Your task to perform on an android device: Look up the best rated hair dryer on Walmart. Image 0: 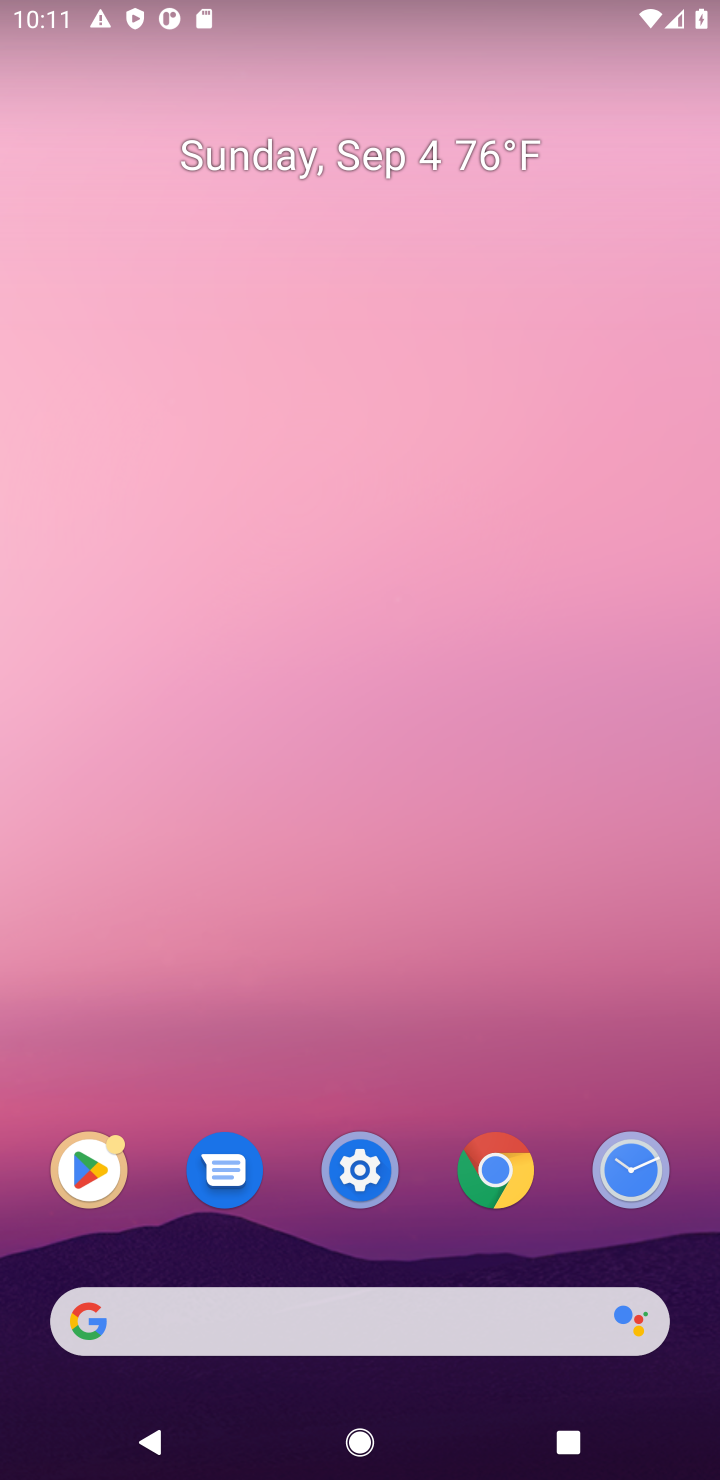
Step 0: click (467, 1309)
Your task to perform on an android device: Look up the best rated hair dryer on Walmart. Image 1: 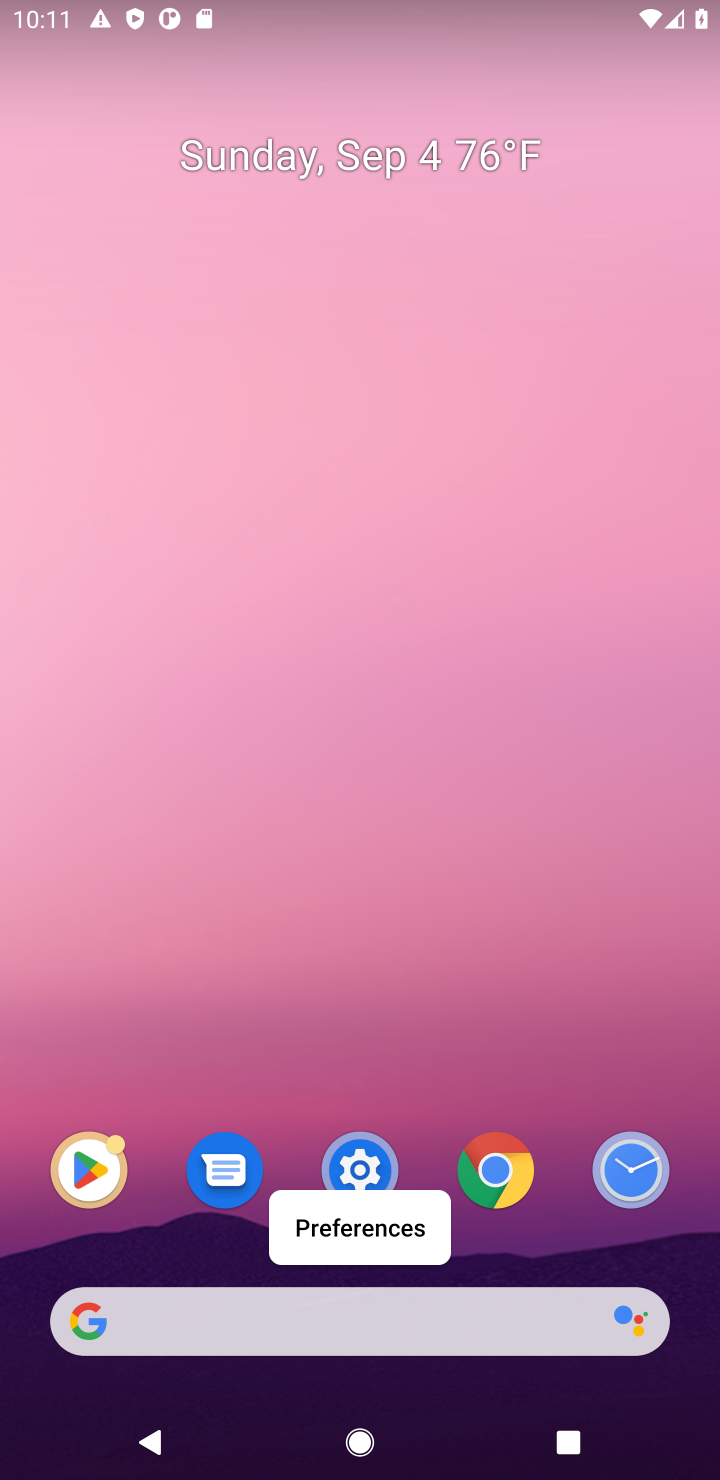
Step 1: click (295, 1330)
Your task to perform on an android device: Look up the best rated hair dryer on Walmart. Image 2: 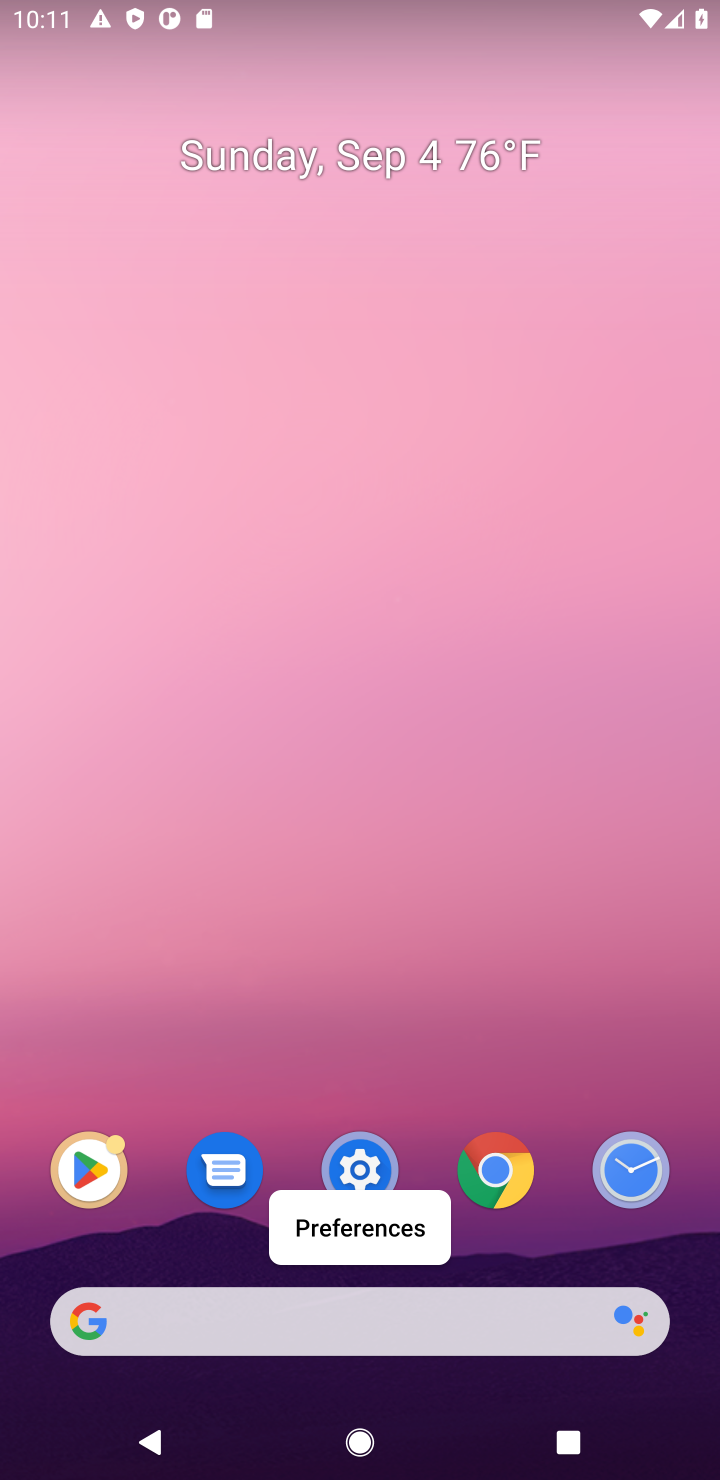
Step 2: click (223, 1337)
Your task to perform on an android device: Look up the best rated hair dryer on Walmart. Image 3: 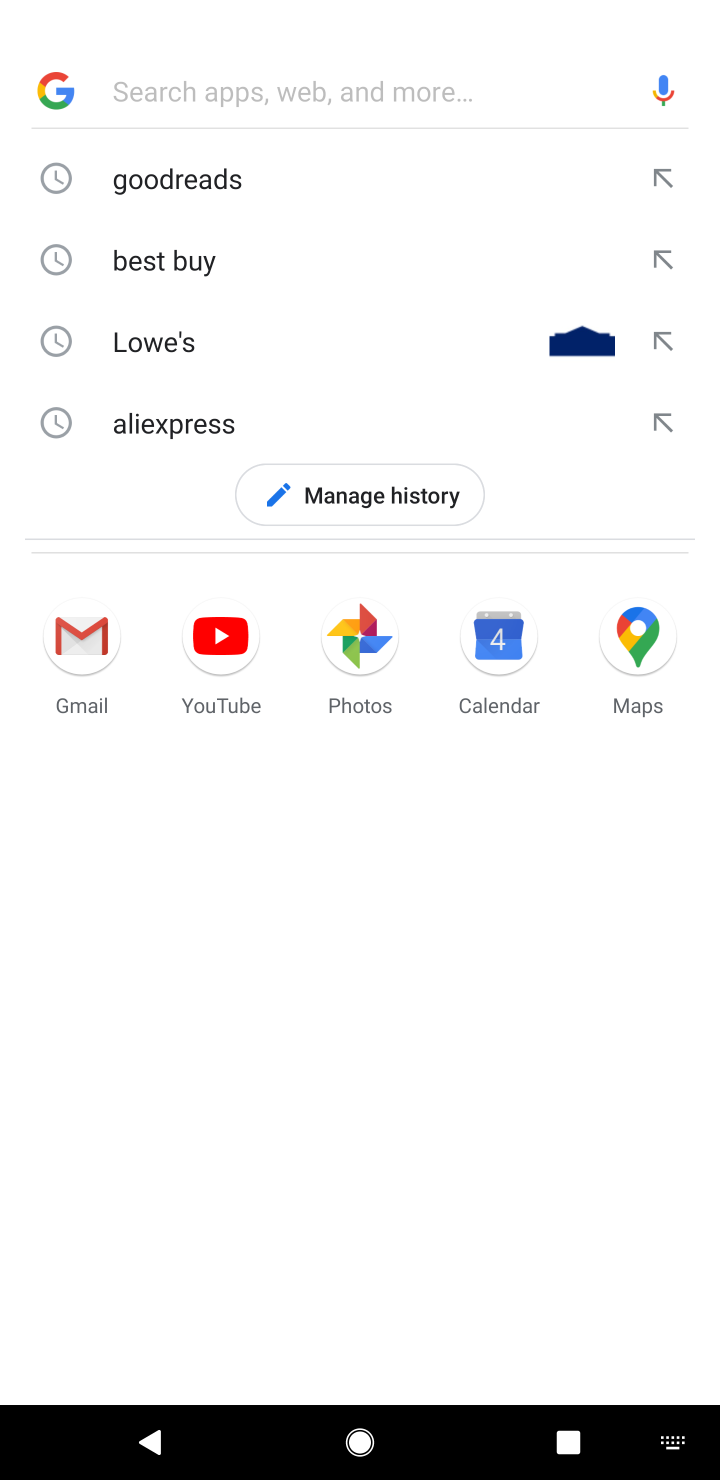
Step 3: type "Walmart"
Your task to perform on an android device: Look up the best rated hair dryer on Walmart. Image 4: 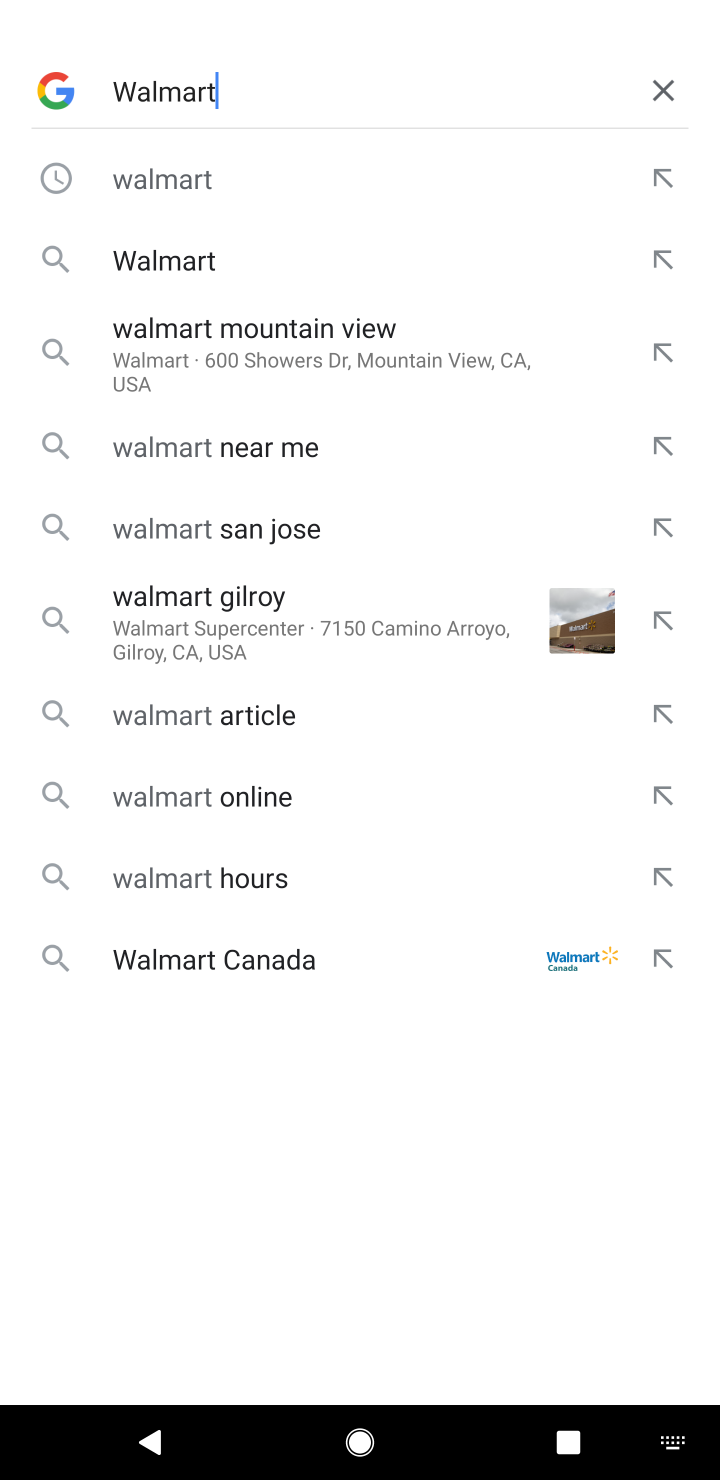
Step 4: click (227, 203)
Your task to perform on an android device: Look up the best rated hair dryer on Walmart. Image 5: 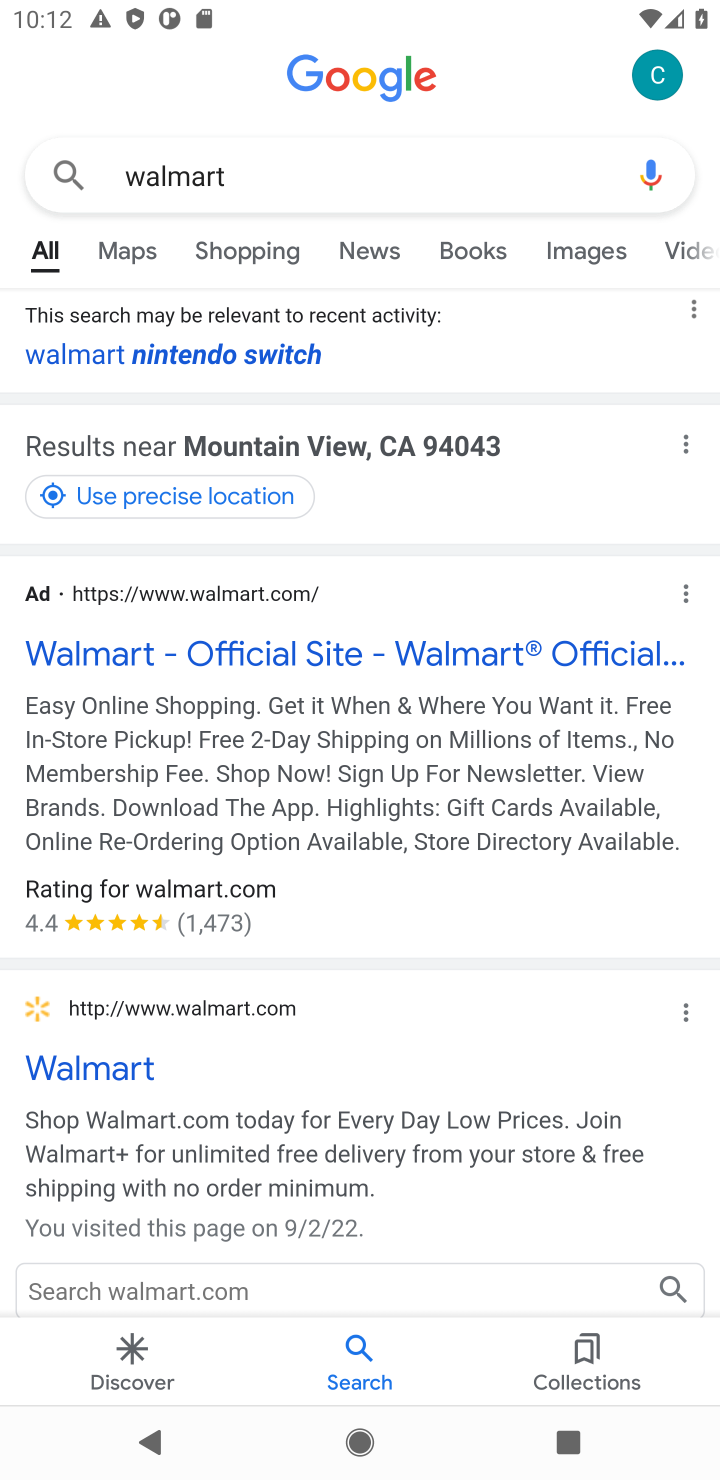
Step 5: click (76, 1056)
Your task to perform on an android device: Look up the best rated hair dryer on Walmart. Image 6: 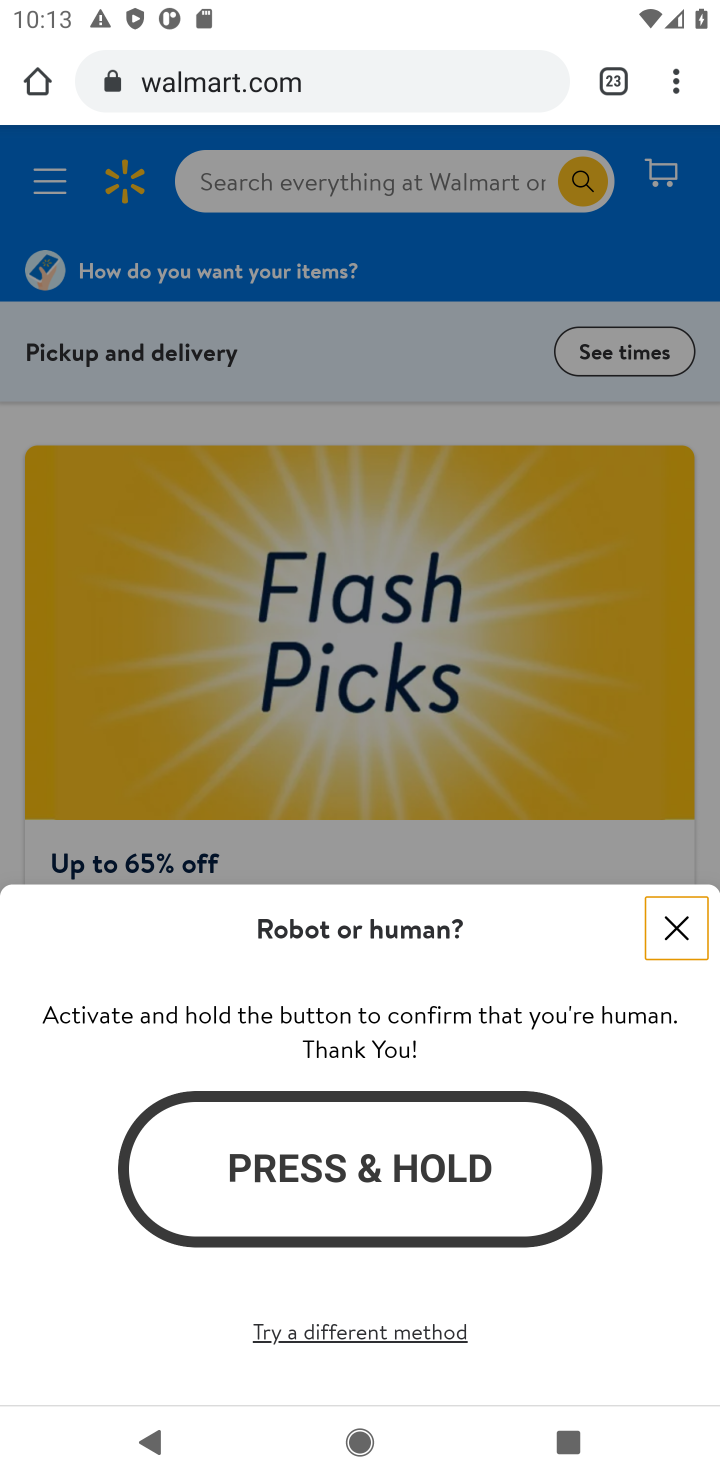
Step 6: click (688, 938)
Your task to perform on an android device: Look up the best rated hair dryer on Walmart. Image 7: 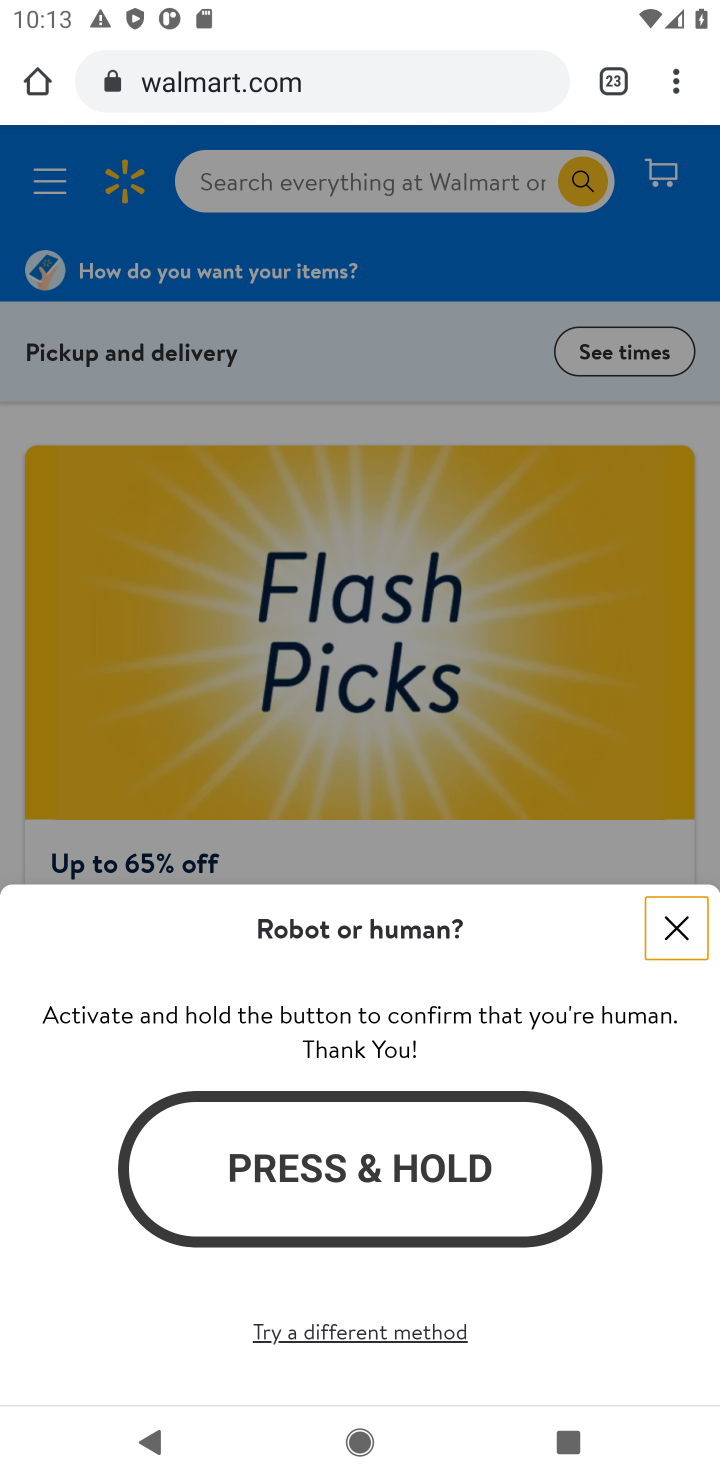
Step 7: click (688, 938)
Your task to perform on an android device: Look up the best rated hair dryer on Walmart. Image 8: 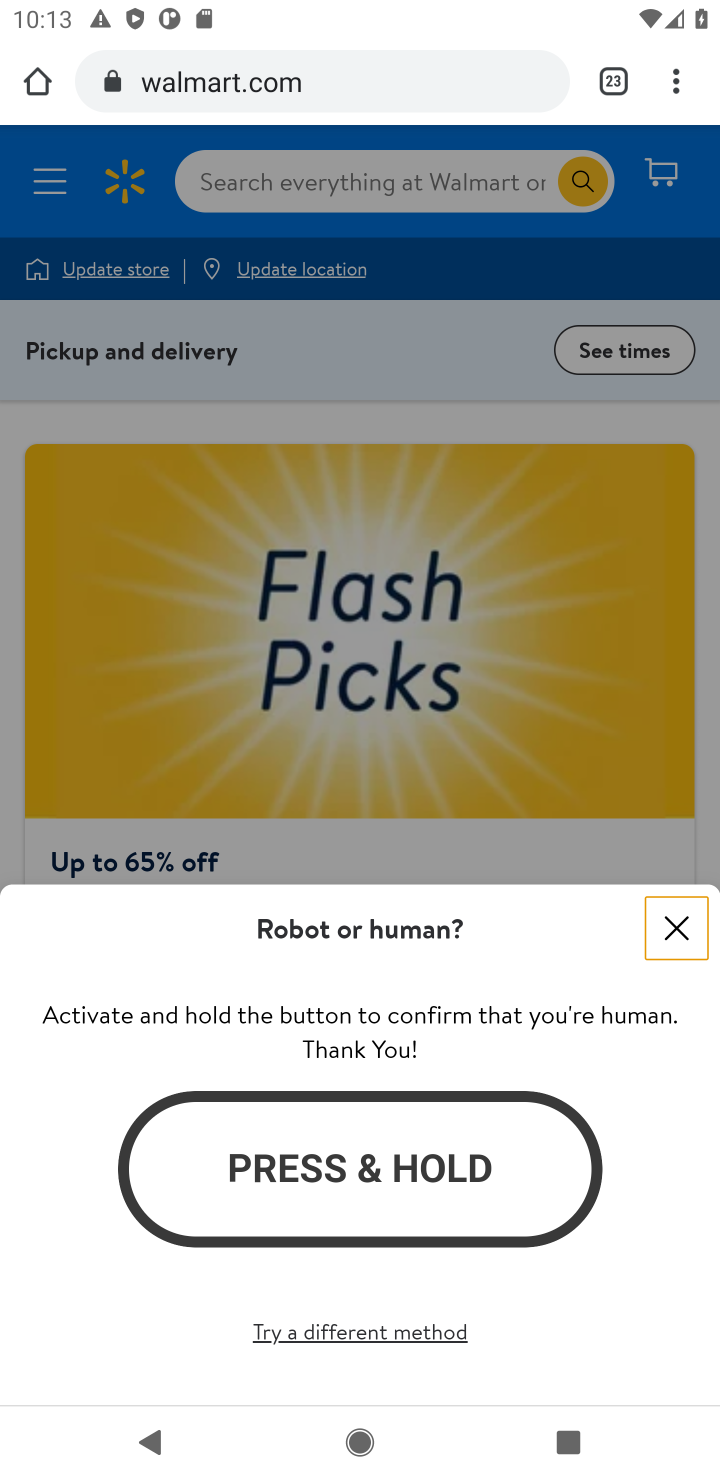
Step 8: click (681, 940)
Your task to perform on an android device: Look up the best rated hair dryer on Walmart. Image 9: 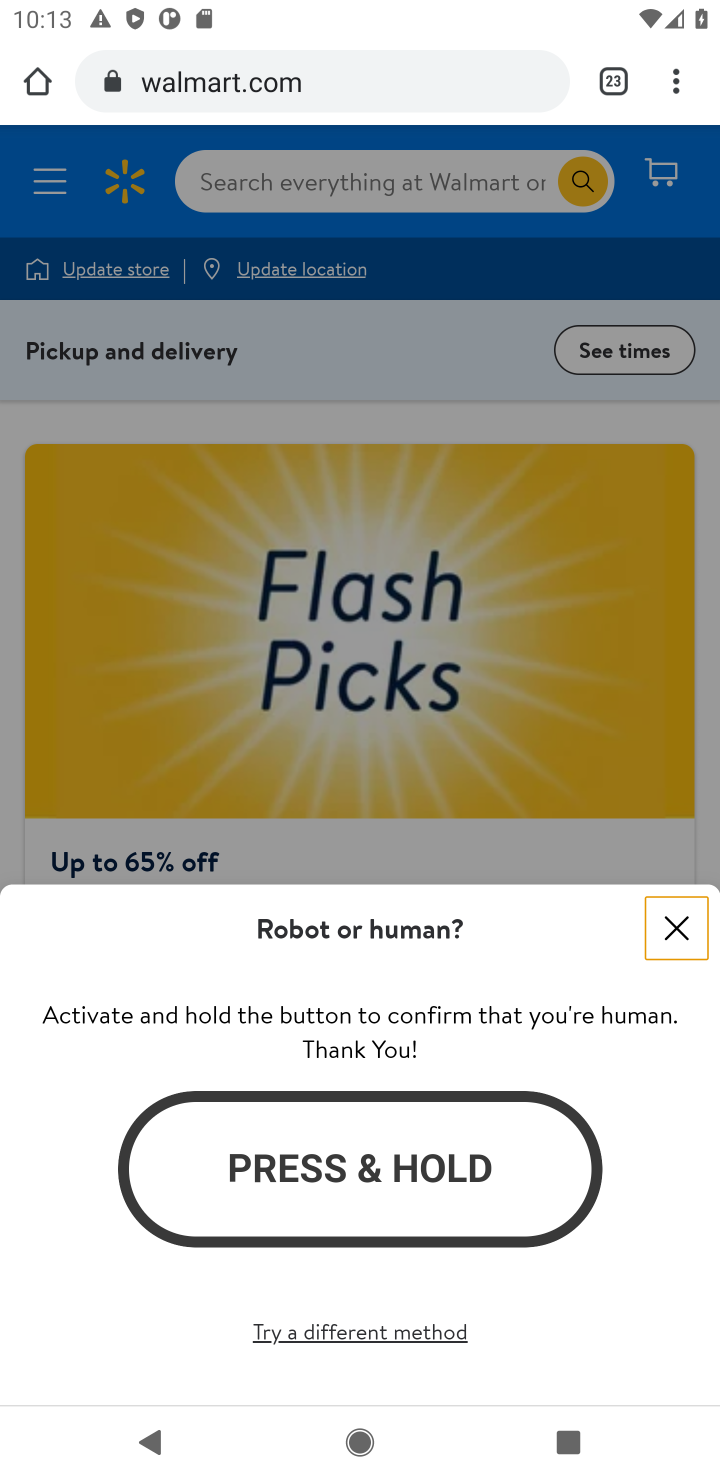
Step 9: click (310, 214)
Your task to perform on an android device: Look up the best rated hair dryer on Walmart. Image 10: 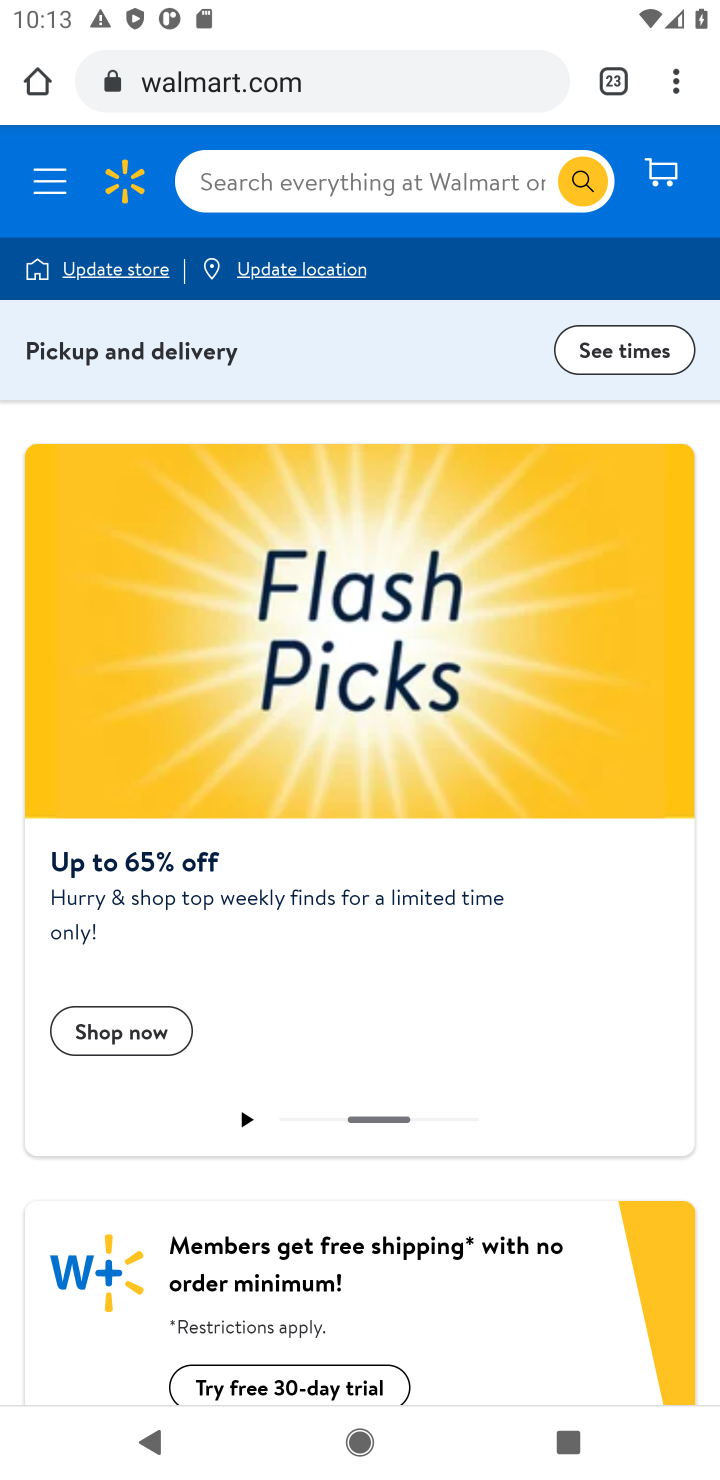
Step 10: click (303, 188)
Your task to perform on an android device: Look up the best rated hair dryer on Walmart. Image 11: 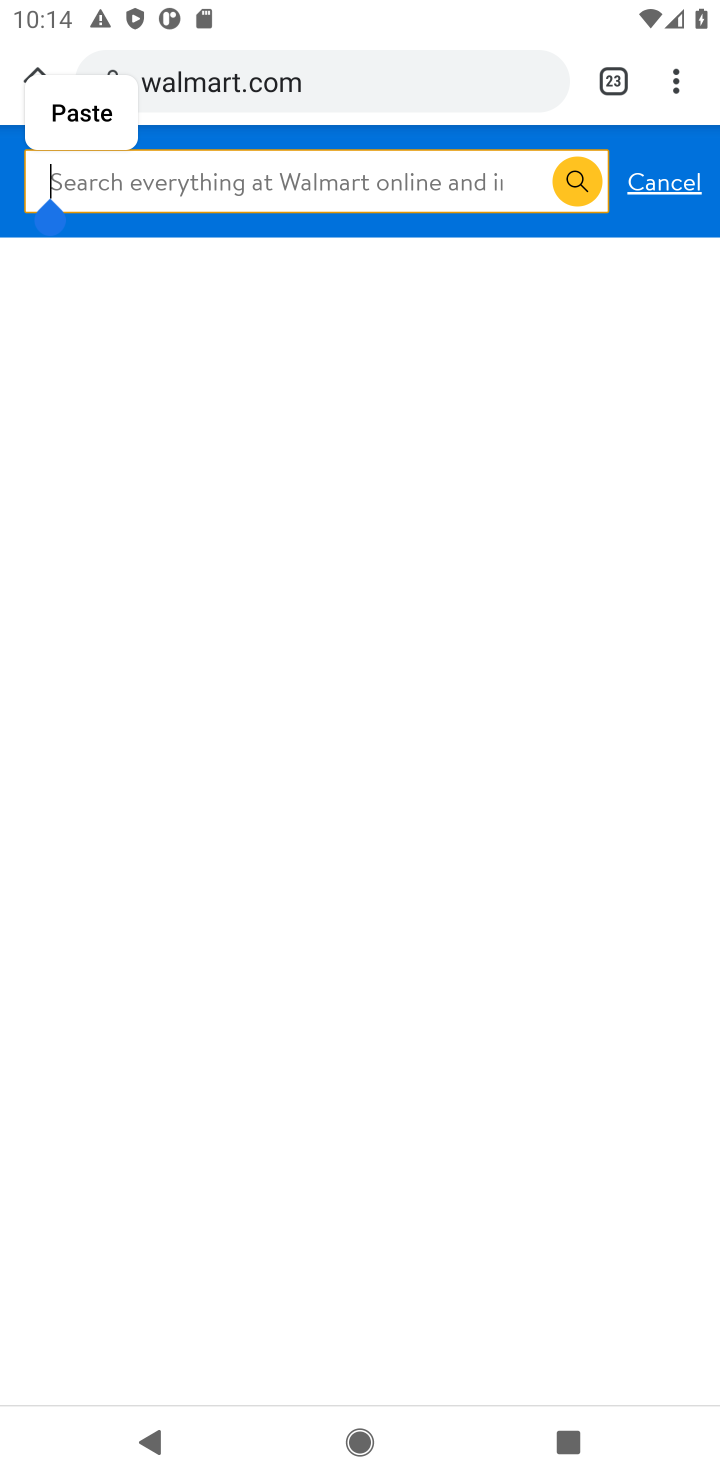
Step 11: type "hair dryer"
Your task to perform on an android device: Look up the best rated hair dryer on Walmart. Image 12: 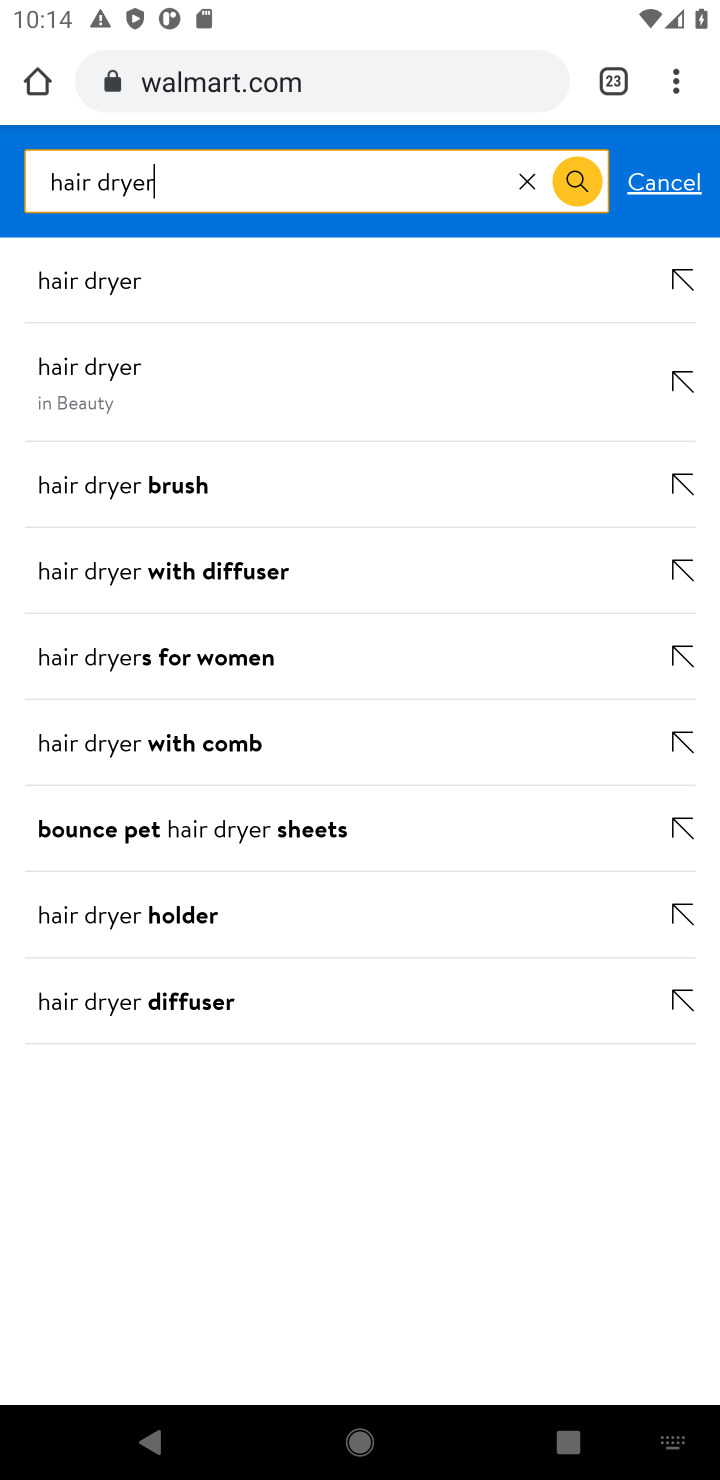
Step 12: click (183, 302)
Your task to perform on an android device: Look up the best rated hair dryer on Walmart. Image 13: 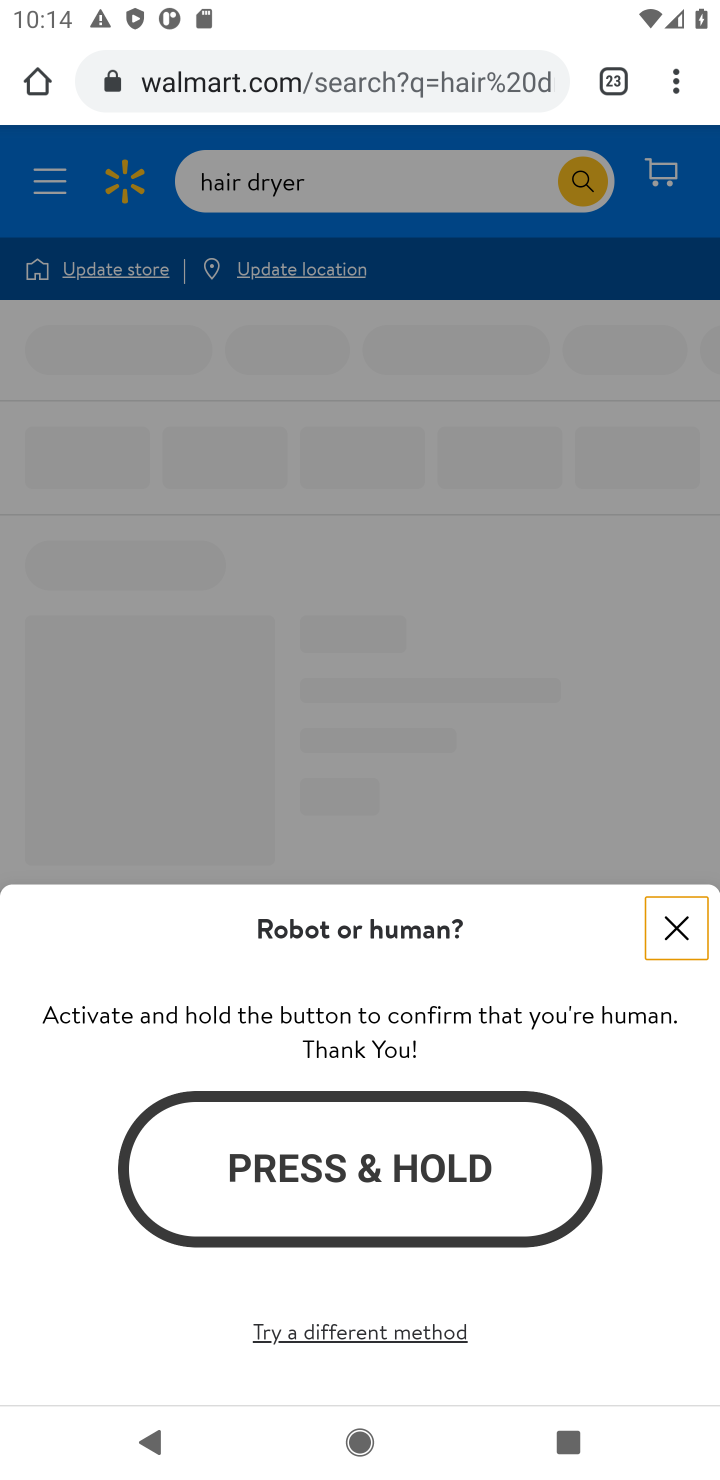
Step 13: click (677, 941)
Your task to perform on an android device: Look up the best rated hair dryer on Walmart. Image 14: 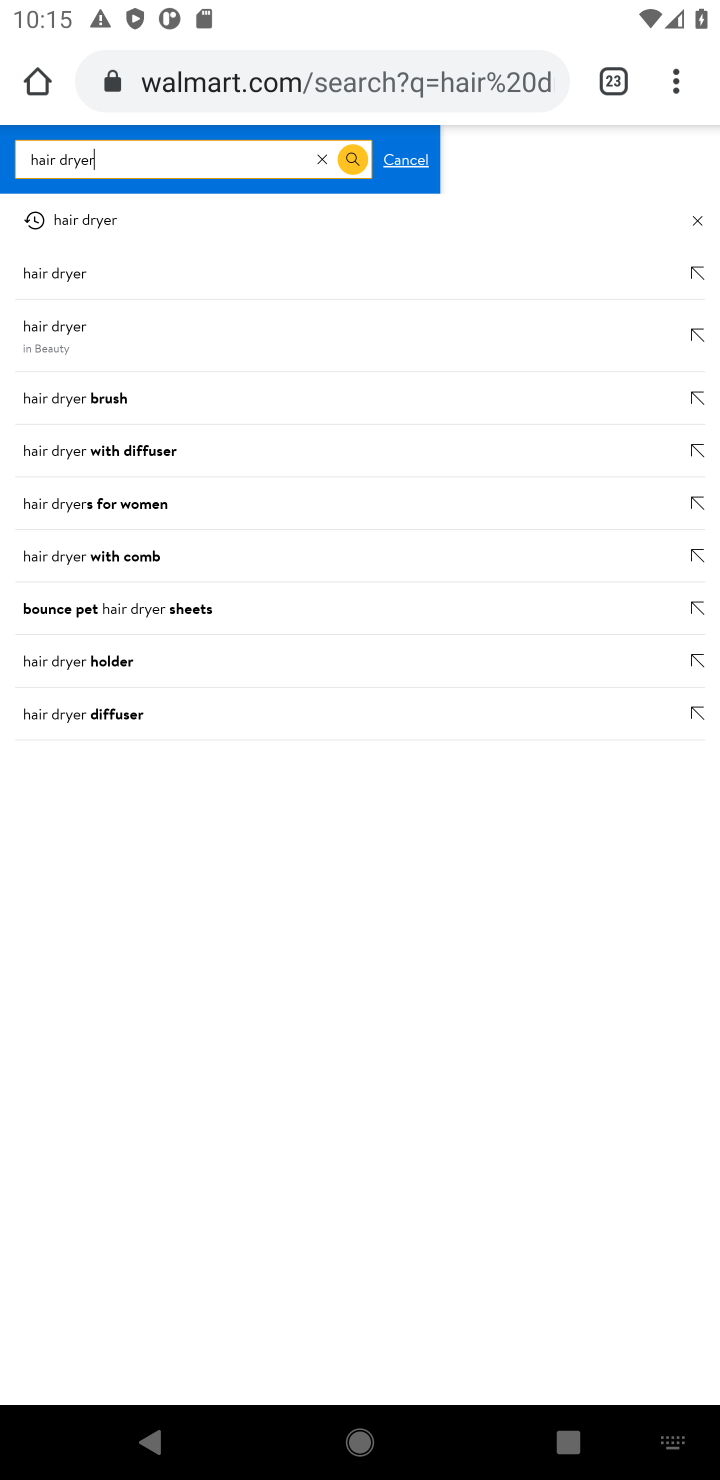
Step 14: click (357, 162)
Your task to perform on an android device: Look up the best rated hair dryer on Walmart. Image 15: 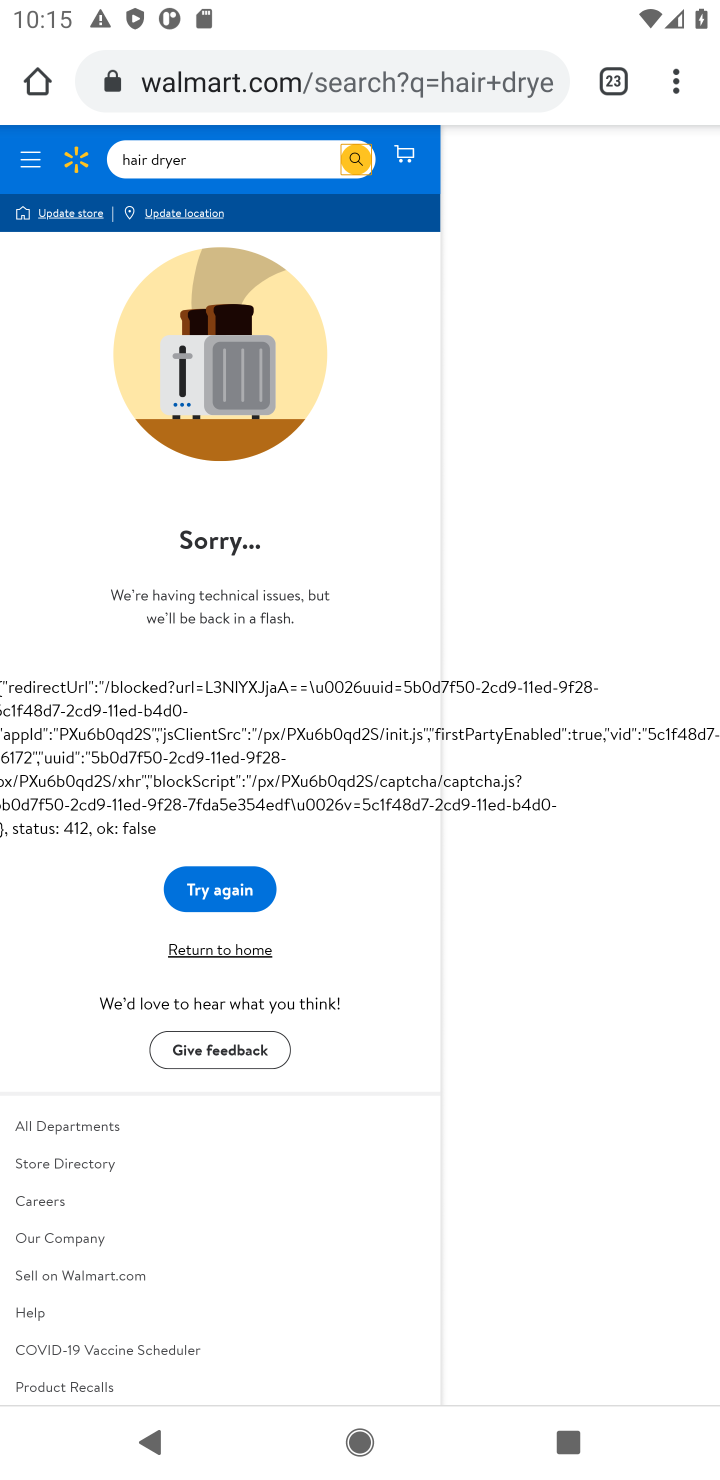
Step 15: task complete